Your task to perform on an android device: Open sound settings Image 0: 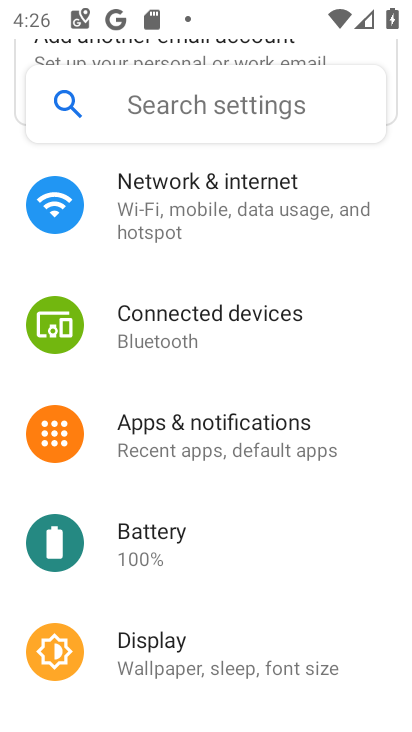
Step 0: drag from (266, 594) to (299, 174)
Your task to perform on an android device: Open sound settings Image 1: 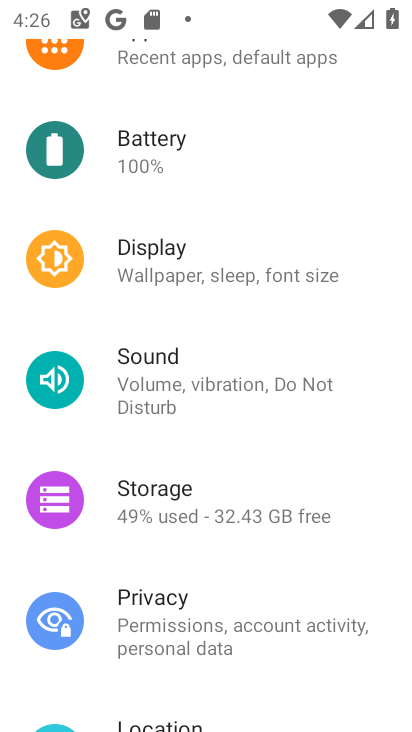
Step 1: click (250, 396)
Your task to perform on an android device: Open sound settings Image 2: 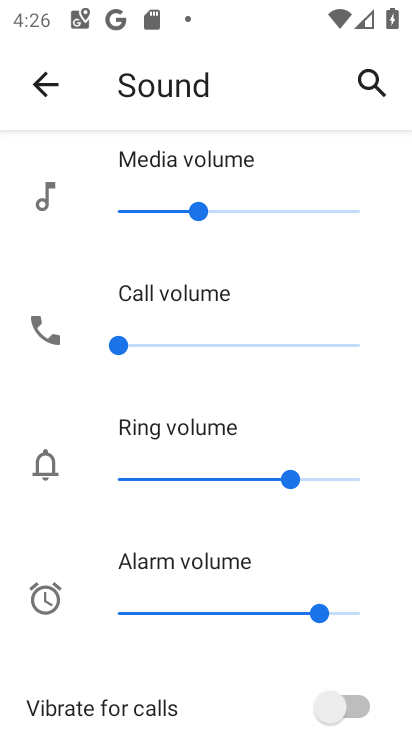
Step 2: task complete